Your task to perform on an android device: open app "Viber Messenger" (install if not already installed) and go to login screen Image 0: 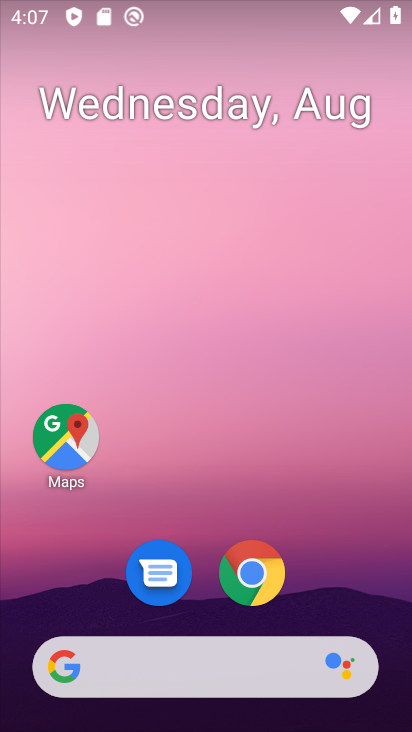
Step 0: drag from (216, 508) to (260, 124)
Your task to perform on an android device: open app "Viber Messenger" (install if not already installed) and go to login screen Image 1: 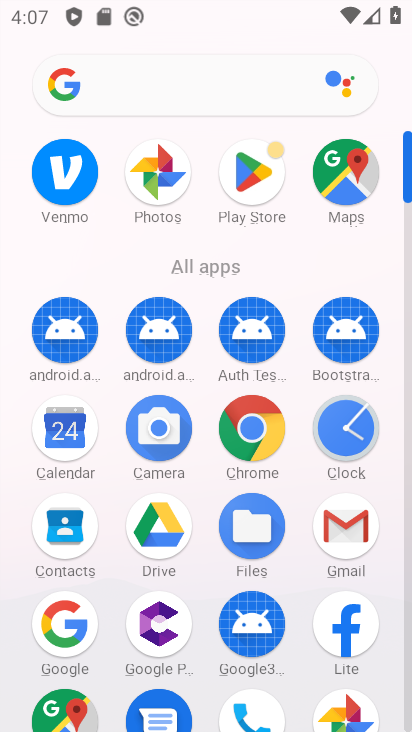
Step 1: click (254, 161)
Your task to perform on an android device: open app "Viber Messenger" (install if not already installed) and go to login screen Image 2: 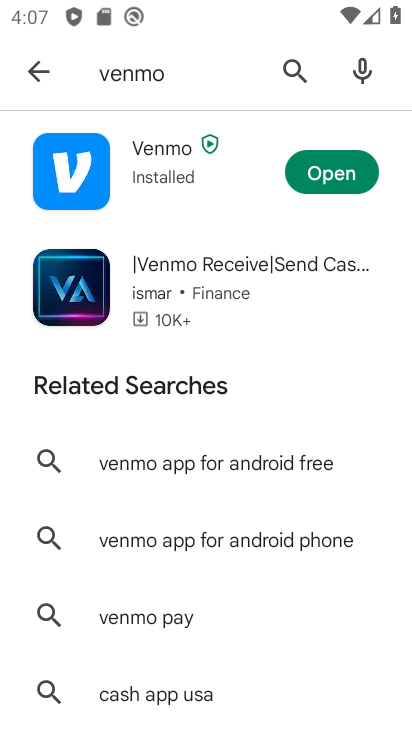
Step 2: click (299, 66)
Your task to perform on an android device: open app "Viber Messenger" (install if not already installed) and go to login screen Image 3: 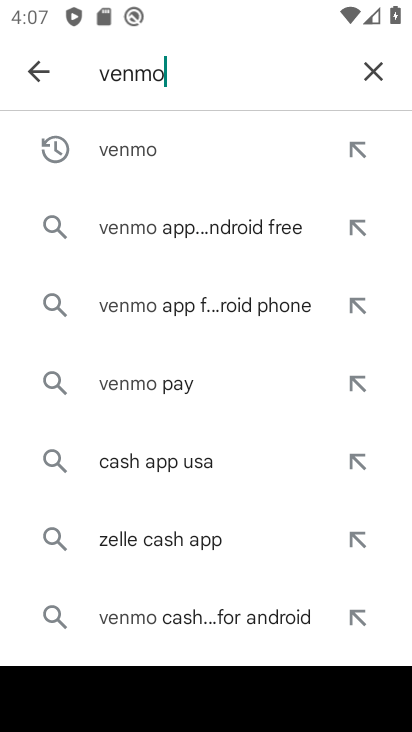
Step 3: click (372, 81)
Your task to perform on an android device: open app "Viber Messenger" (install if not already installed) and go to login screen Image 4: 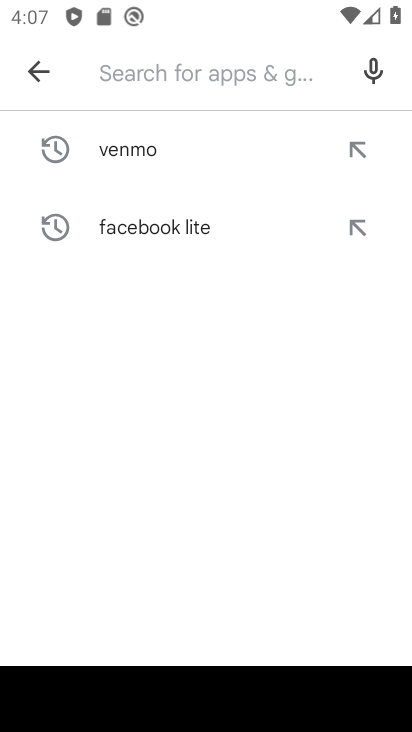
Step 4: type "Viber Messenger"
Your task to perform on an android device: open app "Viber Messenger" (install if not already installed) and go to login screen Image 5: 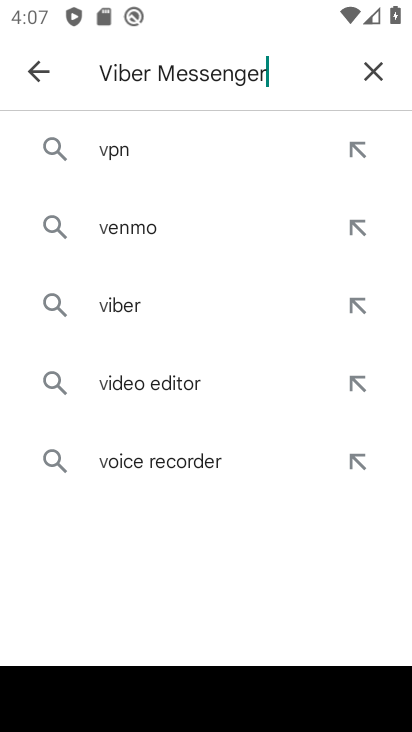
Step 5: type ""
Your task to perform on an android device: open app "Viber Messenger" (install if not already installed) and go to login screen Image 6: 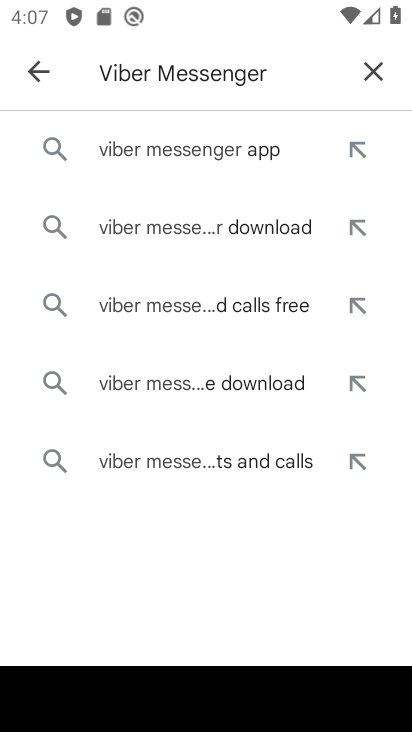
Step 6: click (172, 142)
Your task to perform on an android device: open app "Viber Messenger" (install if not already installed) and go to login screen Image 7: 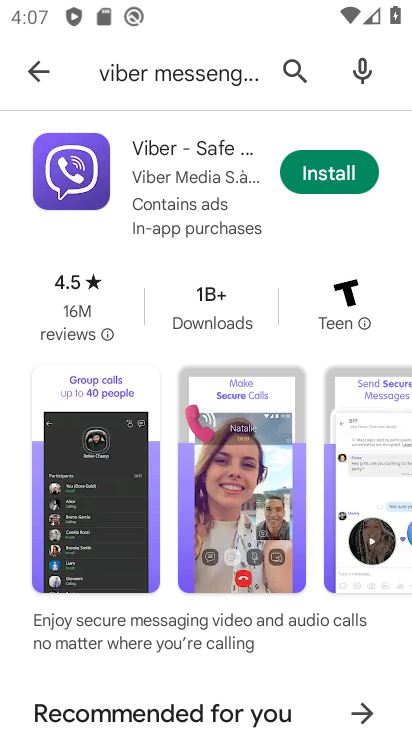
Step 7: click (315, 169)
Your task to perform on an android device: open app "Viber Messenger" (install if not already installed) and go to login screen Image 8: 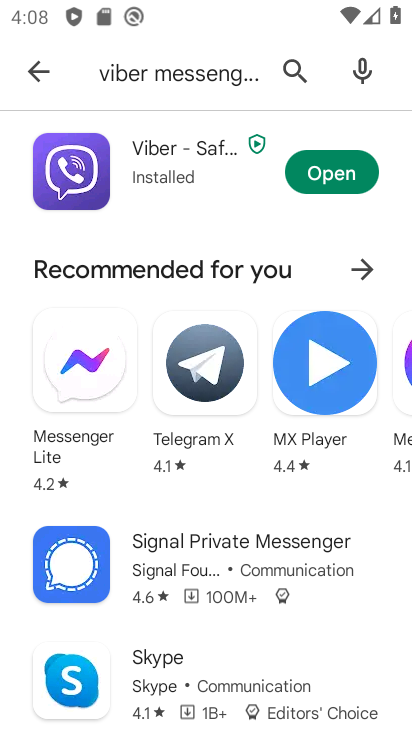
Step 8: click (315, 169)
Your task to perform on an android device: open app "Viber Messenger" (install if not already installed) and go to login screen Image 9: 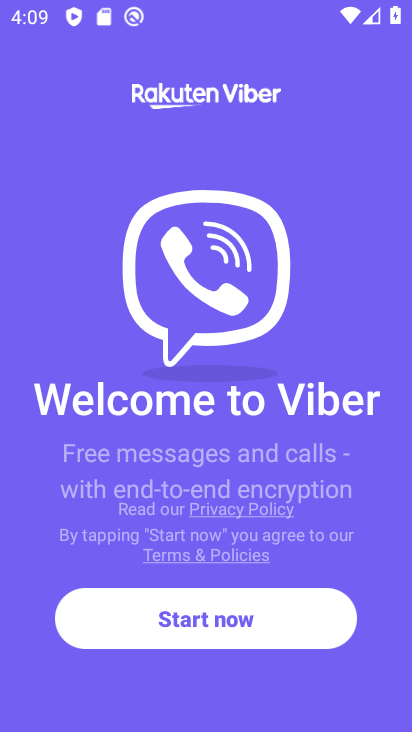
Step 9: task complete